Your task to perform on an android device: Go to Google maps Image 0: 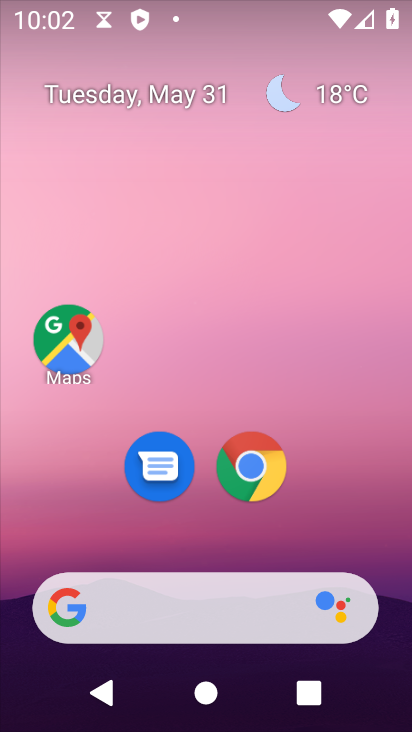
Step 0: drag from (352, 525) to (239, 7)
Your task to perform on an android device: Go to Google maps Image 1: 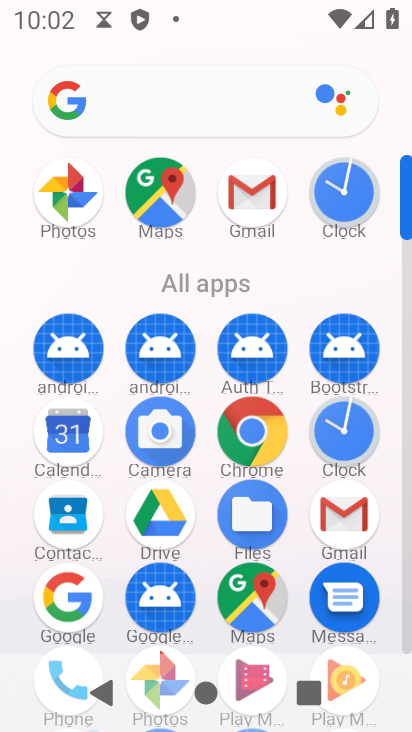
Step 1: drag from (25, 531) to (25, 243)
Your task to perform on an android device: Go to Google maps Image 2: 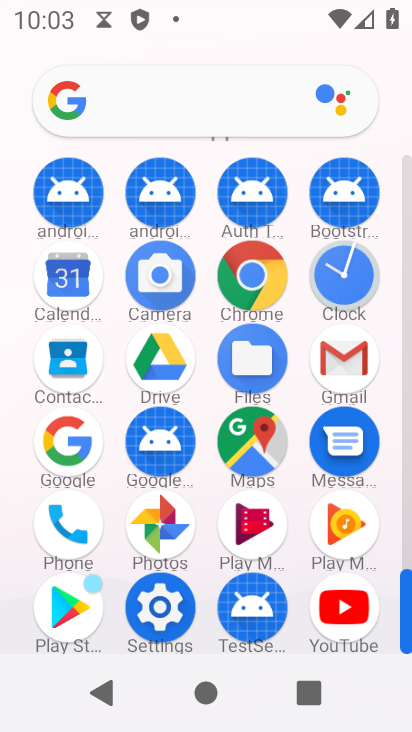
Step 2: click (253, 441)
Your task to perform on an android device: Go to Google maps Image 3: 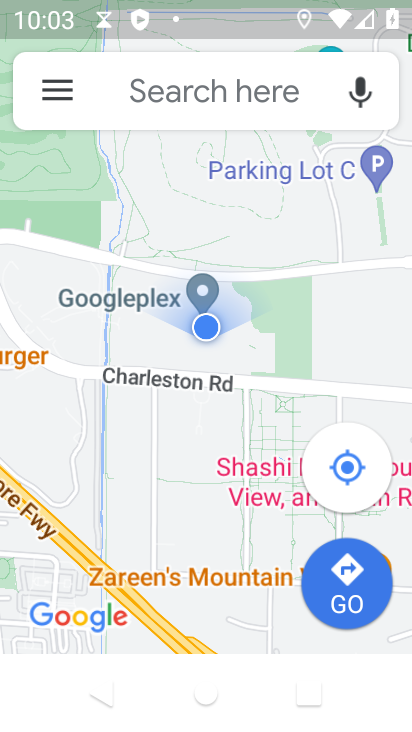
Step 3: task complete